Your task to perform on an android device: Is it going to rain today? Image 0: 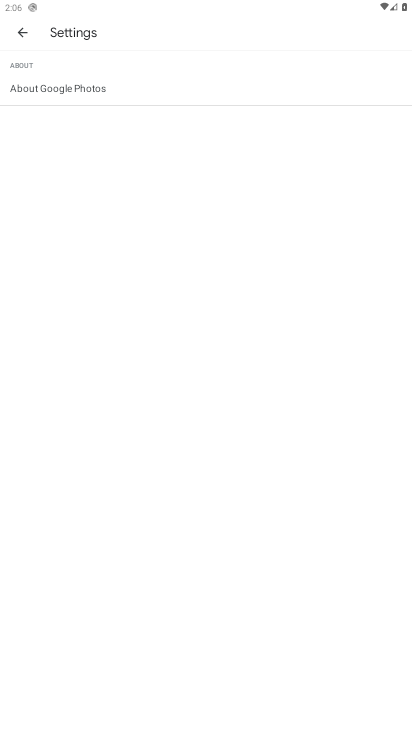
Step 0: press home button
Your task to perform on an android device: Is it going to rain today? Image 1: 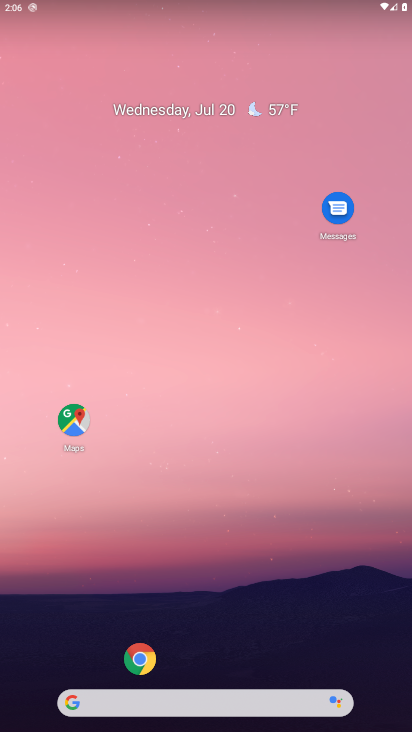
Step 1: click (226, 700)
Your task to perform on an android device: Is it going to rain today? Image 2: 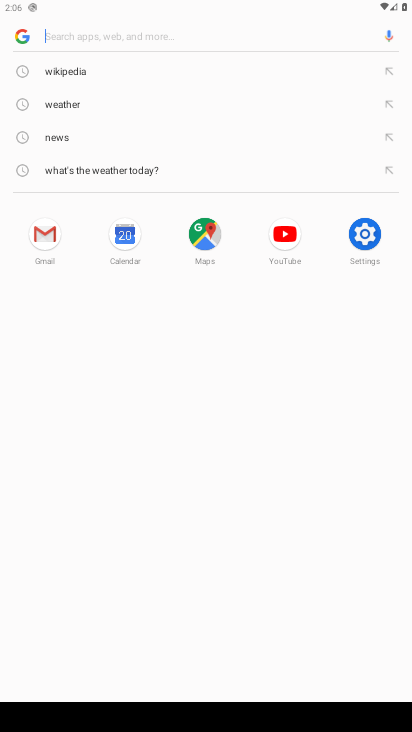
Step 2: type "Is it going to rain today?"
Your task to perform on an android device: Is it going to rain today? Image 3: 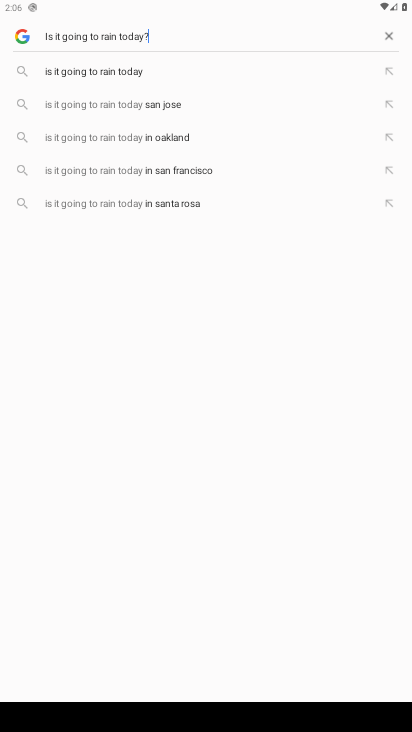
Step 3: type ""
Your task to perform on an android device: Is it going to rain today? Image 4: 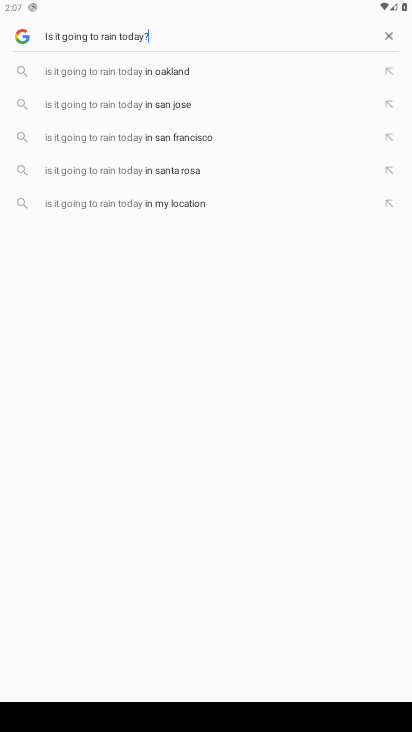
Step 4: type ""
Your task to perform on an android device: Is it going to rain today? Image 5: 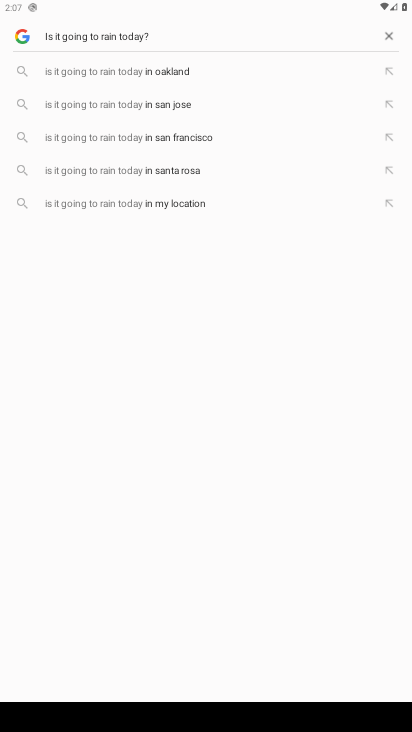
Step 5: task complete